Your task to perform on an android device: delete location history Image 0: 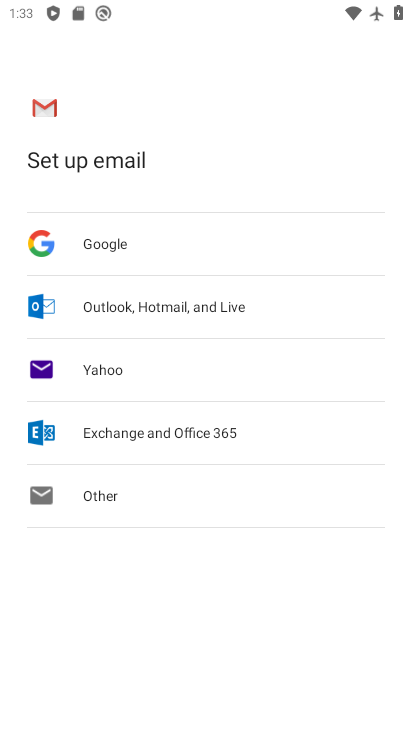
Step 0: press home button
Your task to perform on an android device: delete location history Image 1: 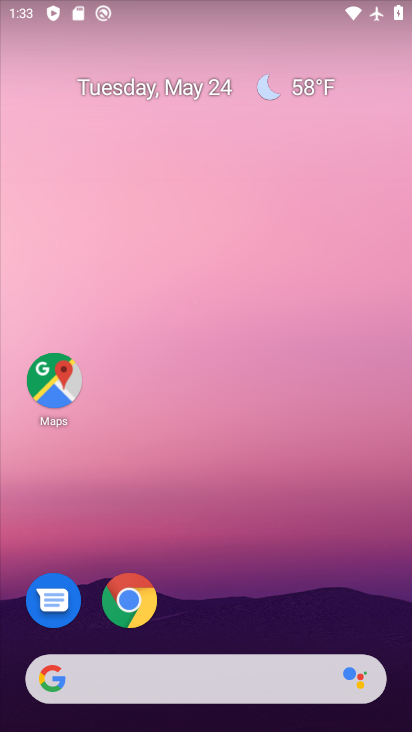
Step 1: drag from (304, 603) to (186, 5)
Your task to perform on an android device: delete location history Image 2: 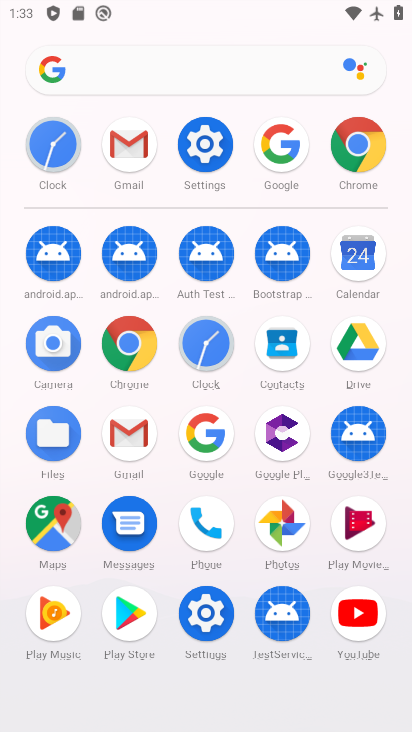
Step 2: click (203, 151)
Your task to perform on an android device: delete location history Image 3: 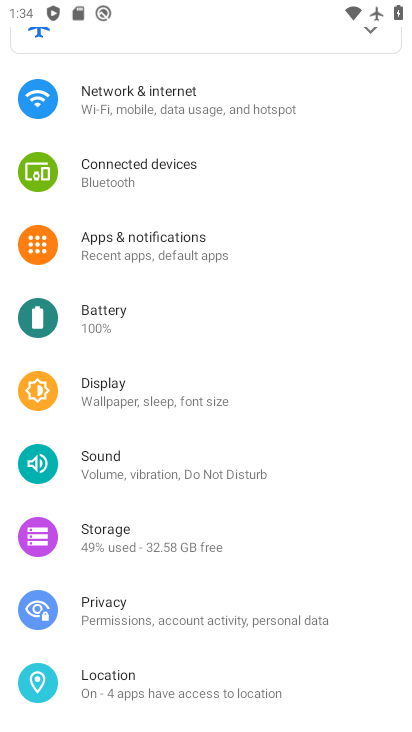
Step 3: click (170, 685)
Your task to perform on an android device: delete location history Image 4: 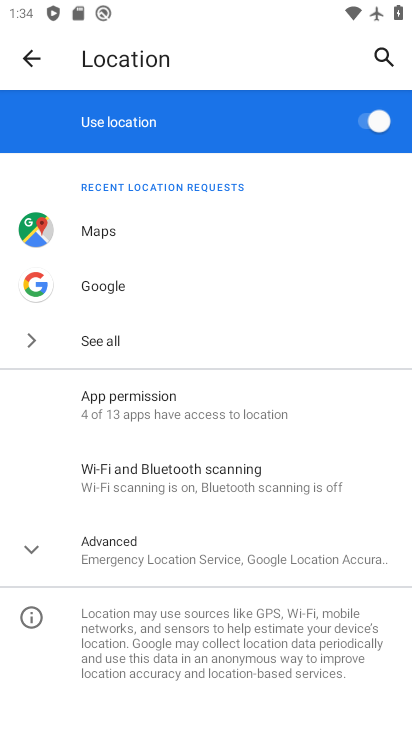
Step 4: click (218, 543)
Your task to perform on an android device: delete location history Image 5: 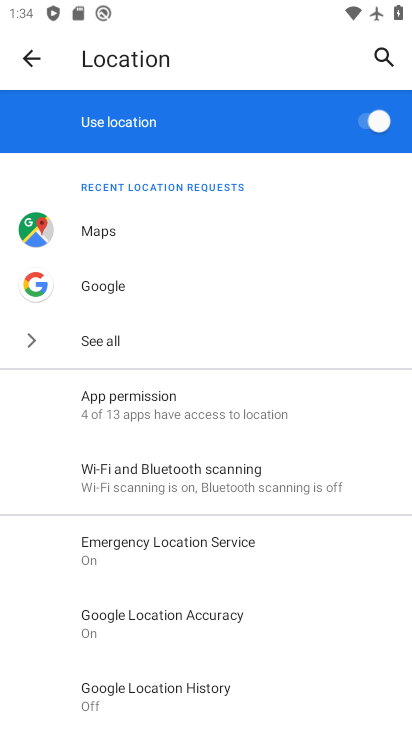
Step 5: click (229, 694)
Your task to perform on an android device: delete location history Image 6: 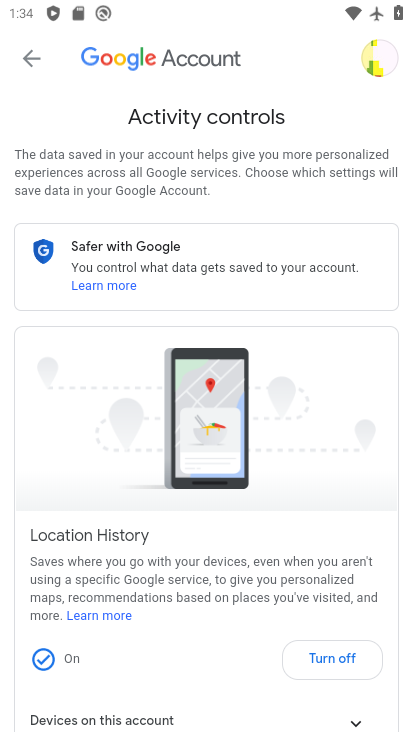
Step 6: drag from (162, 602) to (203, 164)
Your task to perform on an android device: delete location history Image 7: 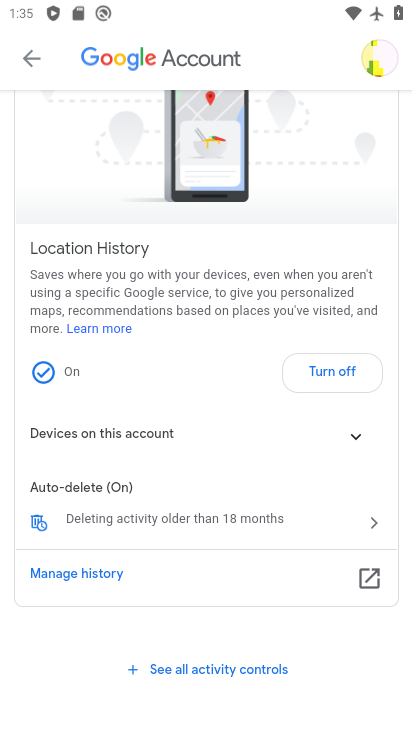
Step 7: click (32, 526)
Your task to perform on an android device: delete location history Image 8: 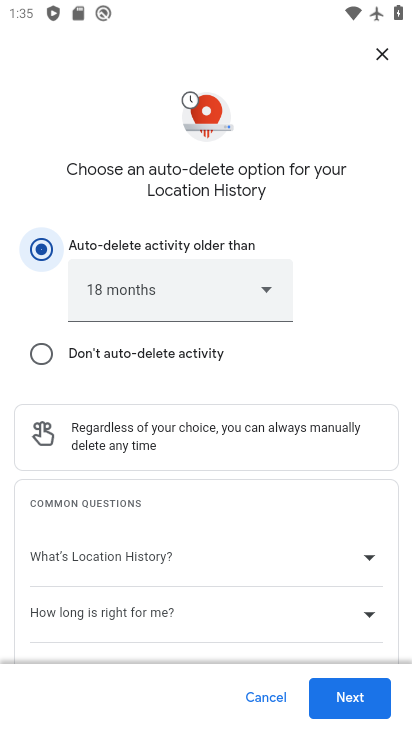
Step 8: click (44, 355)
Your task to perform on an android device: delete location history Image 9: 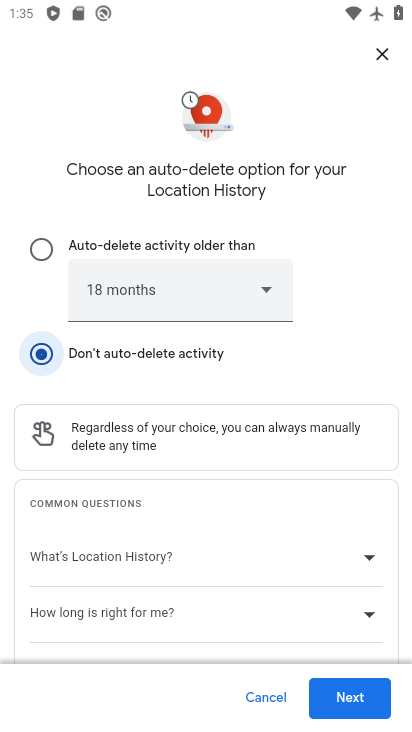
Step 9: click (352, 703)
Your task to perform on an android device: delete location history Image 10: 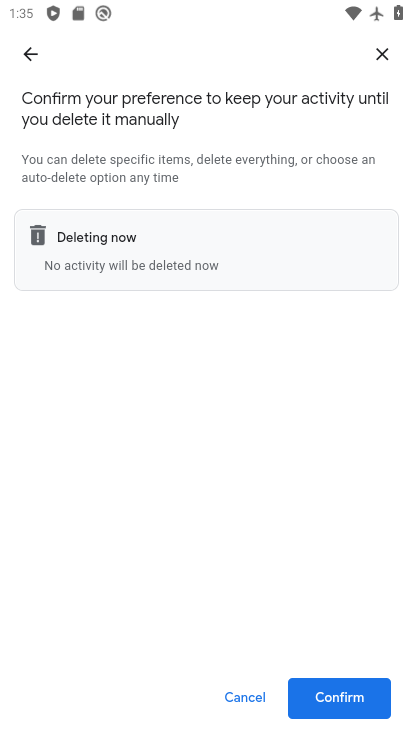
Step 10: click (374, 685)
Your task to perform on an android device: delete location history Image 11: 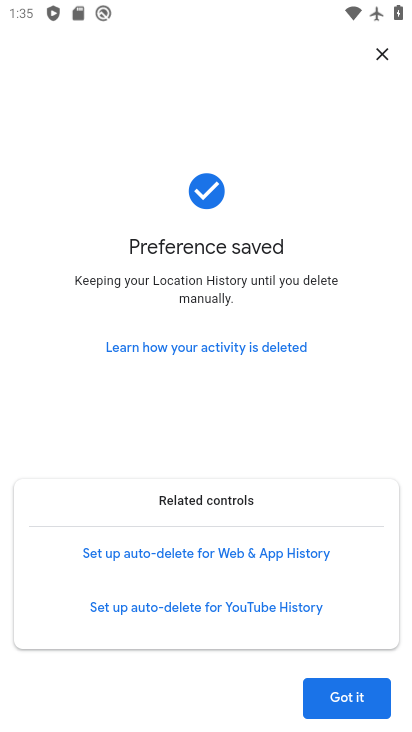
Step 11: click (353, 697)
Your task to perform on an android device: delete location history Image 12: 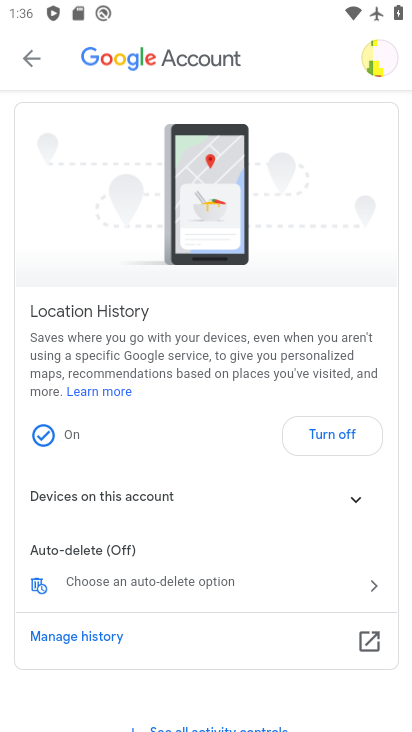
Step 12: task complete